Your task to perform on an android device: turn off wifi Image 0: 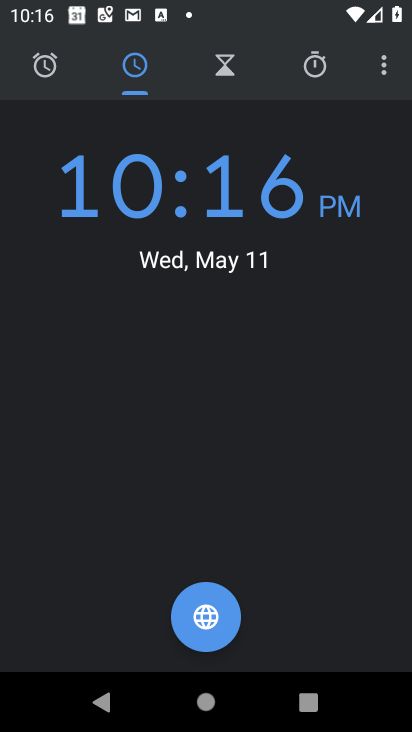
Step 0: press home button
Your task to perform on an android device: turn off wifi Image 1: 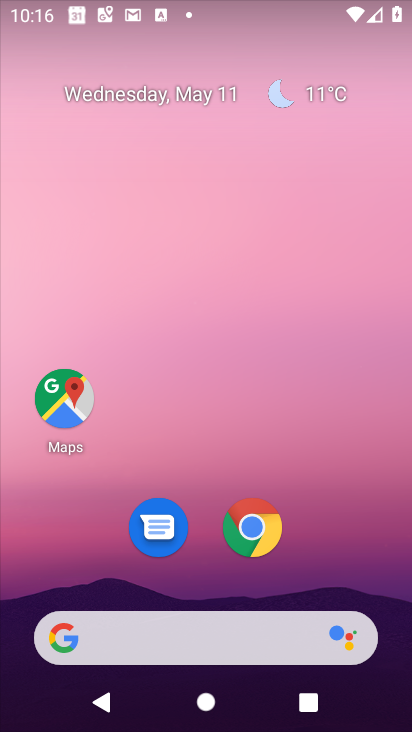
Step 1: drag from (347, 524) to (355, 88)
Your task to perform on an android device: turn off wifi Image 2: 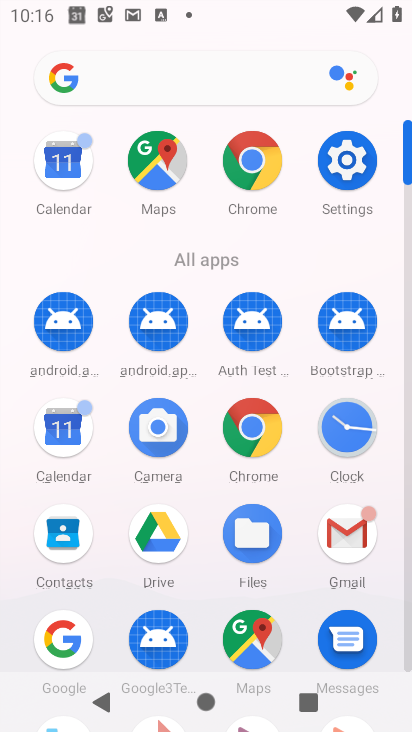
Step 2: click (367, 162)
Your task to perform on an android device: turn off wifi Image 3: 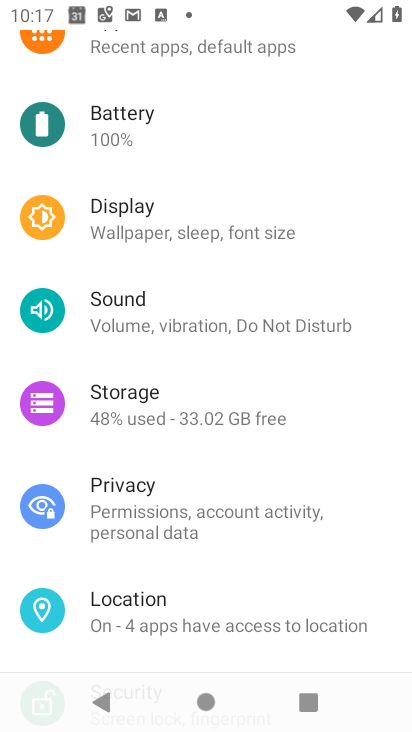
Step 3: drag from (251, 175) to (291, 666)
Your task to perform on an android device: turn off wifi Image 4: 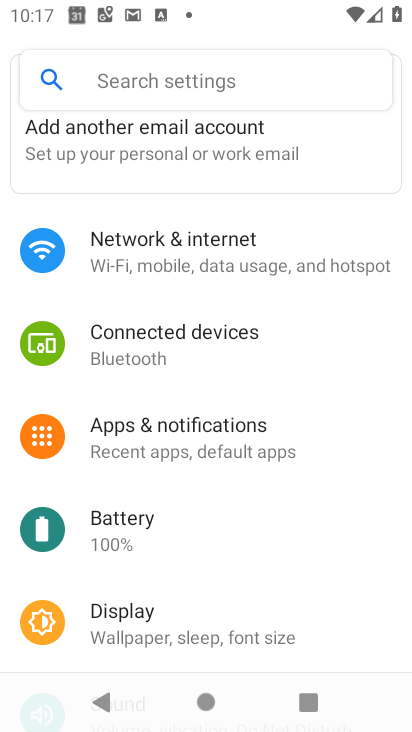
Step 4: drag from (210, 240) to (227, 586)
Your task to perform on an android device: turn off wifi Image 5: 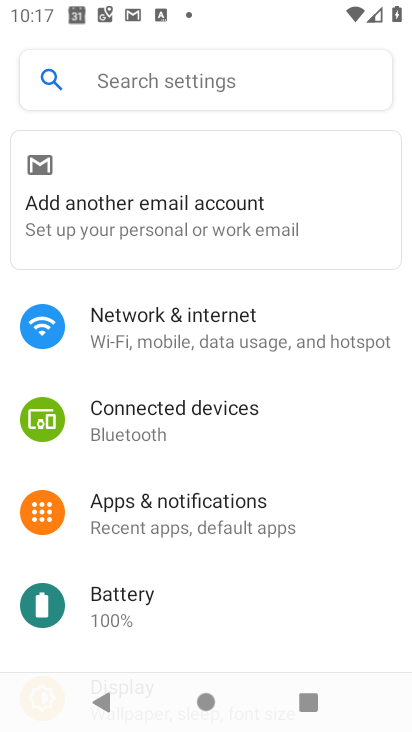
Step 5: click (139, 316)
Your task to perform on an android device: turn off wifi Image 6: 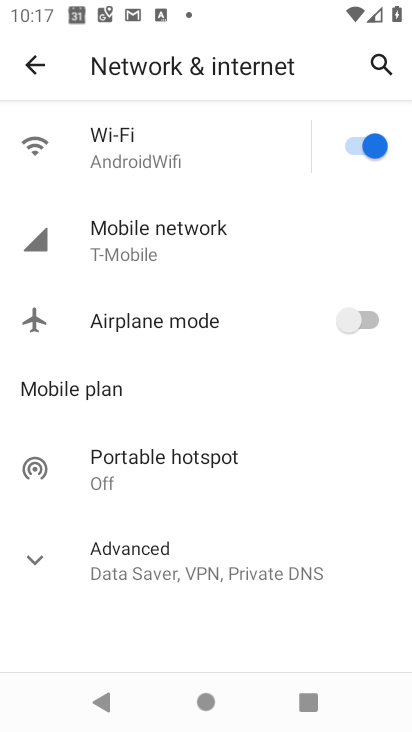
Step 6: click (354, 142)
Your task to perform on an android device: turn off wifi Image 7: 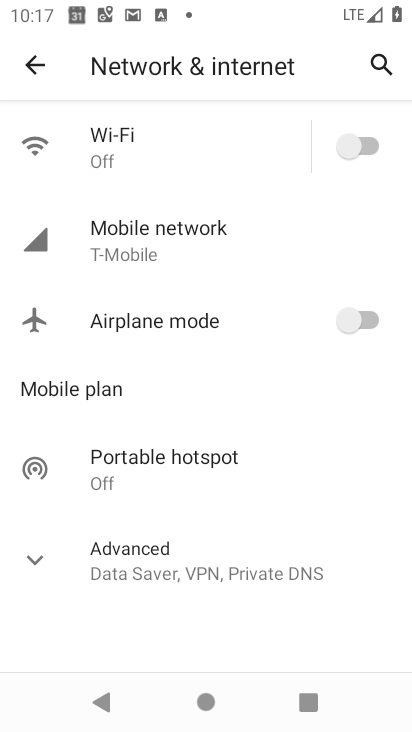
Step 7: task complete